Your task to perform on an android device: What's the news in South Korea? Image 0: 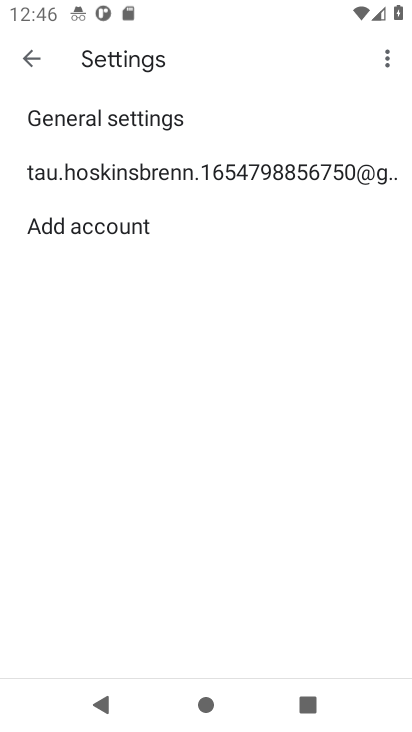
Step 0: press home button
Your task to perform on an android device: What's the news in South Korea? Image 1: 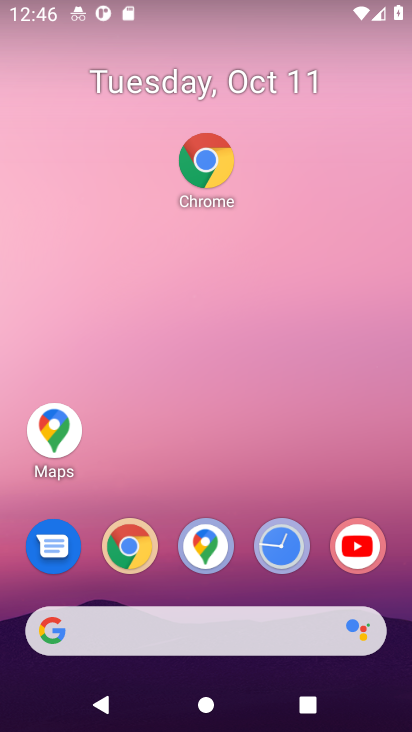
Step 1: click (131, 555)
Your task to perform on an android device: What's the news in South Korea? Image 2: 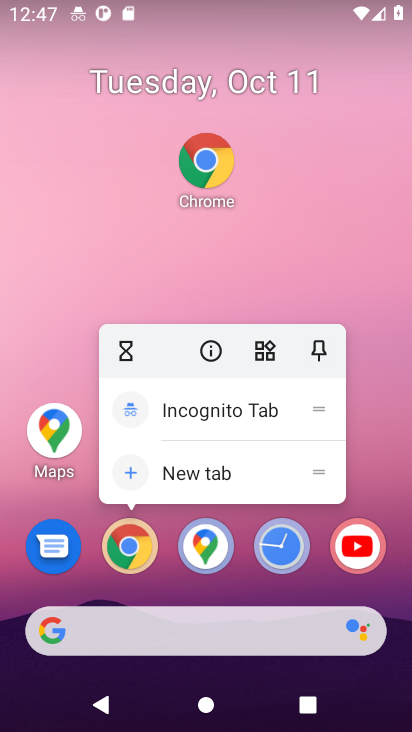
Step 2: click (141, 550)
Your task to perform on an android device: What's the news in South Korea? Image 3: 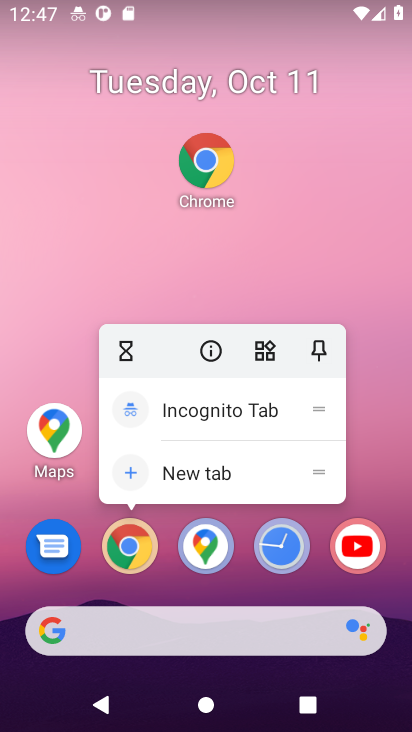
Step 3: click (209, 185)
Your task to perform on an android device: What's the news in South Korea? Image 4: 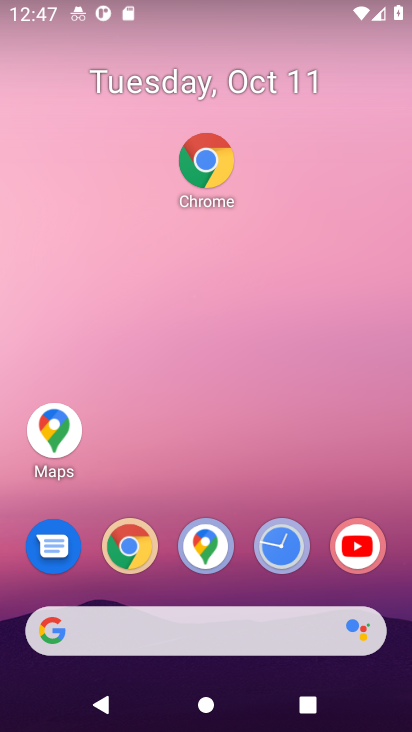
Step 4: click (201, 161)
Your task to perform on an android device: What's the news in South Korea? Image 5: 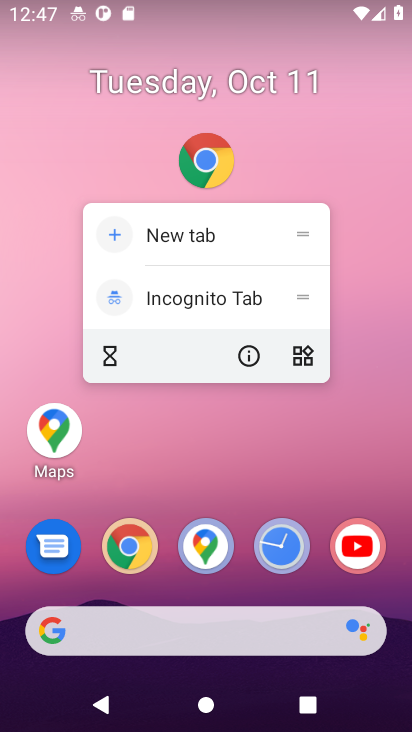
Step 5: click (213, 161)
Your task to perform on an android device: What's the news in South Korea? Image 6: 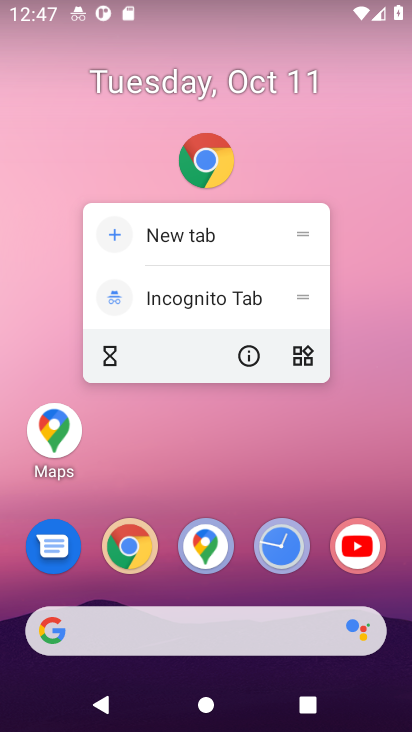
Step 6: click (206, 159)
Your task to perform on an android device: What's the news in South Korea? Image 7: 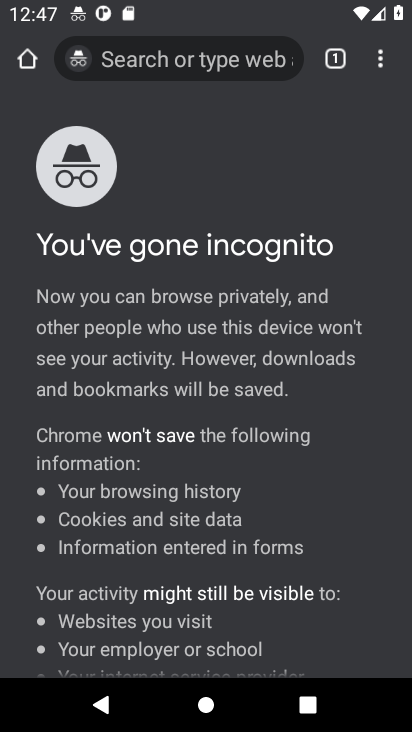
Step 7: click (335, 57)
Your task to perform on an android device: What's the news in South Korea? Image 8: 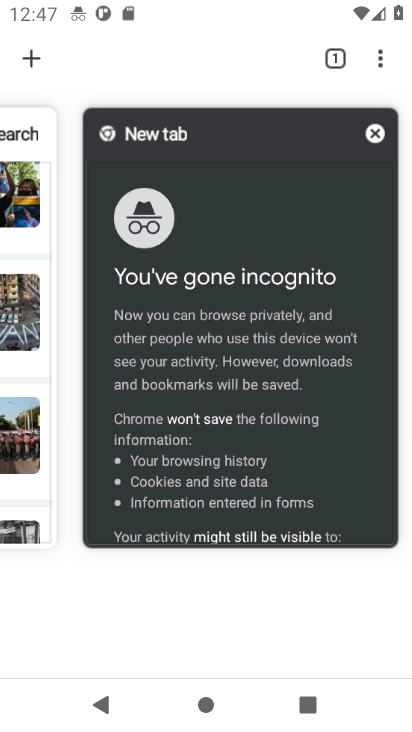
Step 8: click (378, 133)
Your task to perform on an android device: What's the news in South Korea? Image 9: 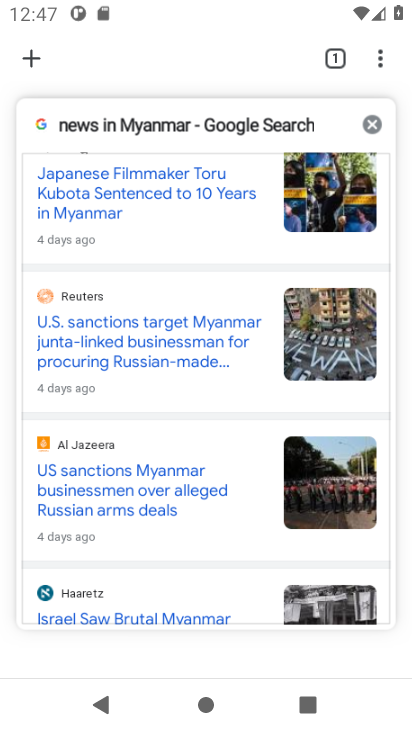
Step 9: click (376, 128)
Your task to perform on an android device: What's the news in South Korea? Image 10: 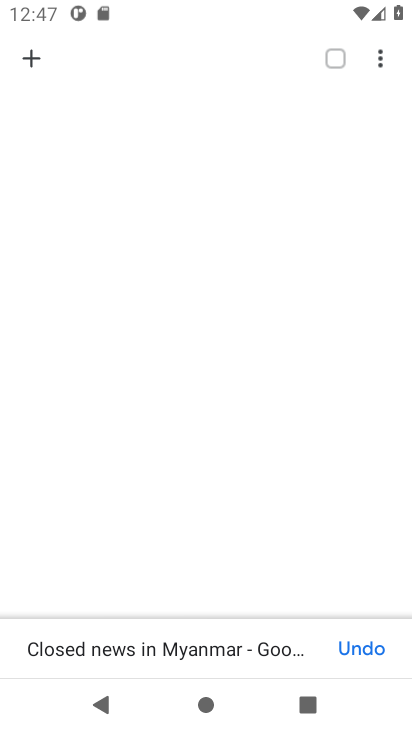
Step 10: click (30, 56)
Your task to perform on an android device: What's the news in South Korea? Image 11: 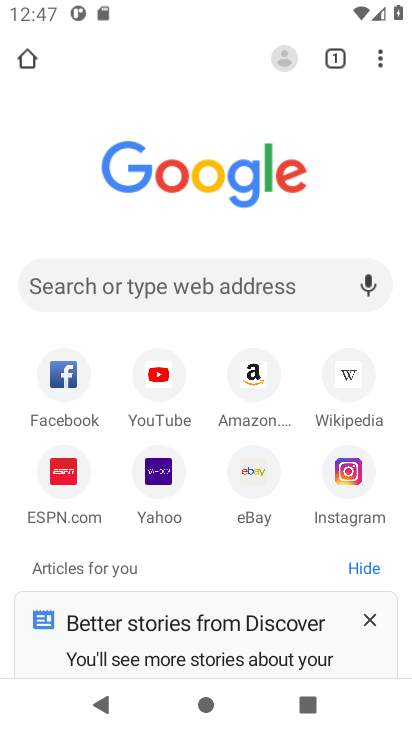
Step 11: click (183, 281)
Your task to perform on an android device: What's the news in South Korea? Image 12: 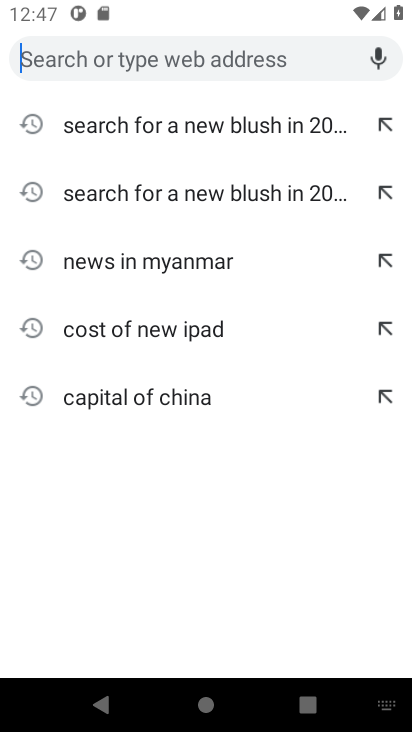
Step 12: type "news in South Korea"
Your task to perform on an android device: What's the news in South Korea? Image 13: 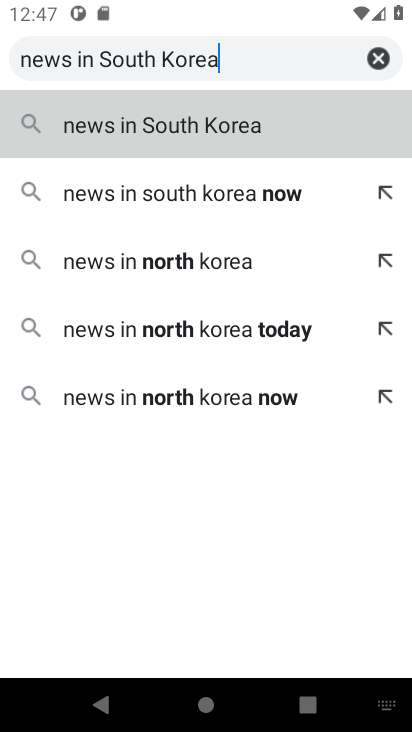
Step 13: type ""
Your task to perform on an android device: What's the news in South Korea? Image 14: 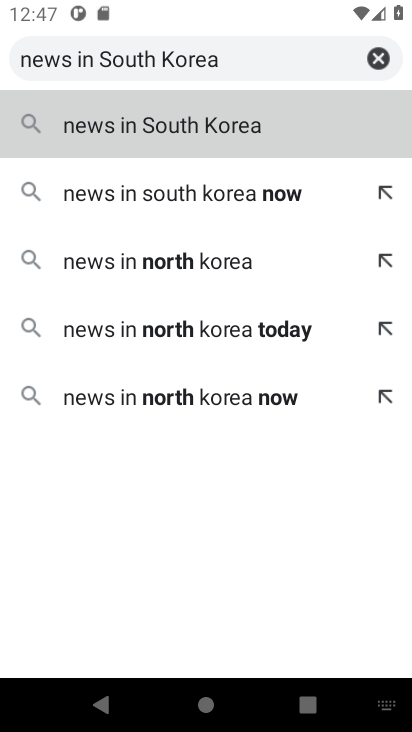
Step 14: press enter
Your task to perform on an android device: What's the news in South Korea? Image 15: 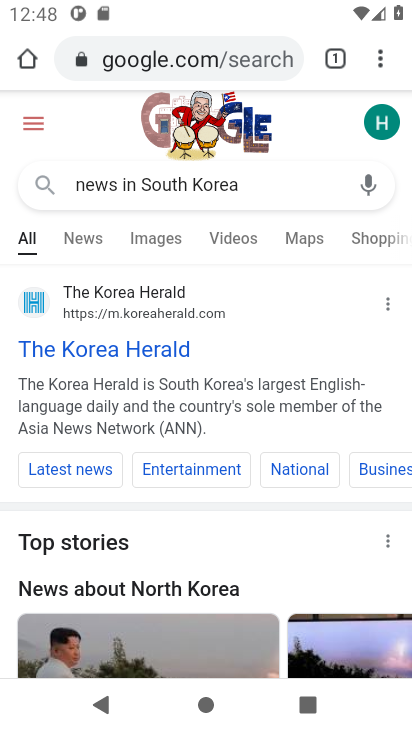
Step 15: click (87, 237)
Your task to perform on an android device: What's the news in South Korea? Image 16: 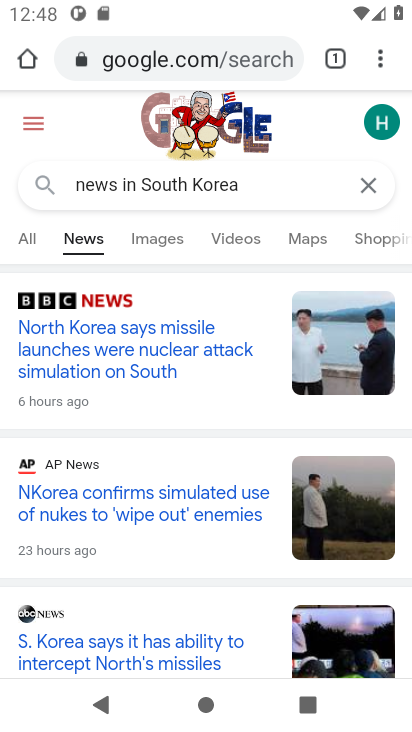
Step 16: task complete